Your task to perform on an android device: manage bookmarks in the chrome app Image 0: 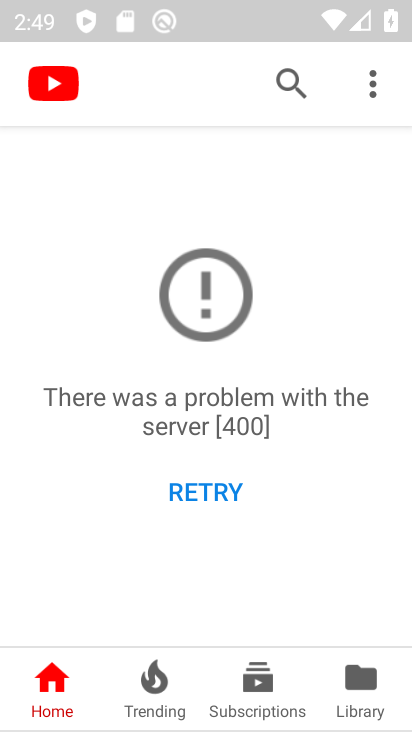
Step 0: press home button
Your task to perform on an android device: manage bookmarks in the chrome app Image 1: 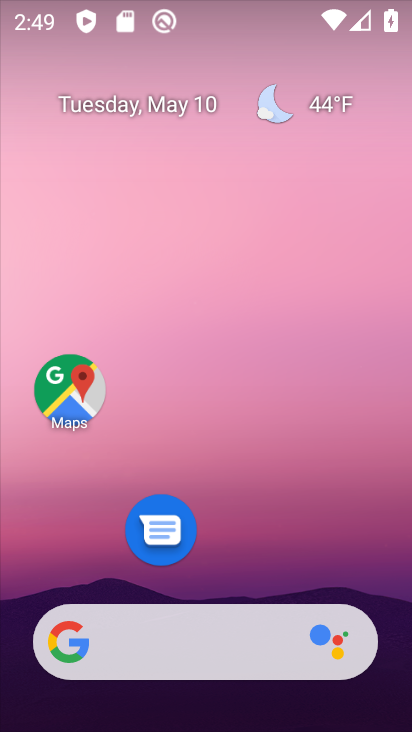
Step 1: drag from (247, 565) to (243, 85)
Your task to perform on an android device: manage bookmarks in the chrome app Image 2: 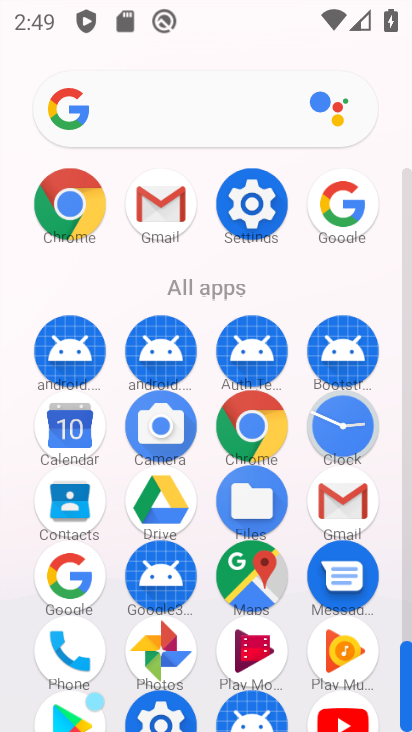
Step 2: click (255, 434)
Your task to perform on an android device: manage bookmarks in the chrome app Image 3: 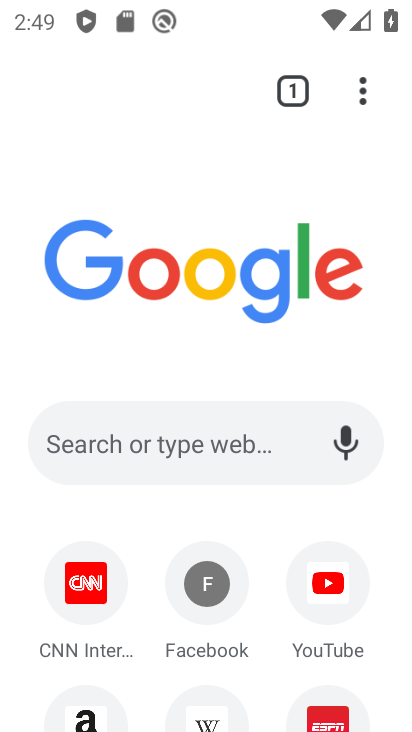
Step 3: click (354, 86)
Your task to perform on an android device: manage bookmarks in the chrome app Image 4: 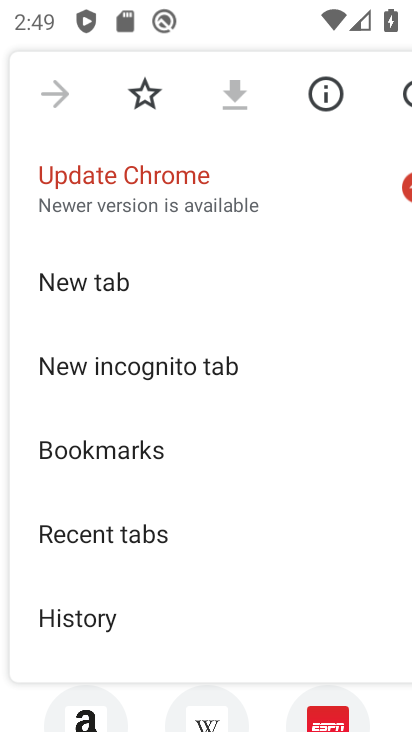
Step 4: drag from (237, 513) to (209, 57)
Your task to perform on an android device: manage bookmarks in the chrome app Image 5: 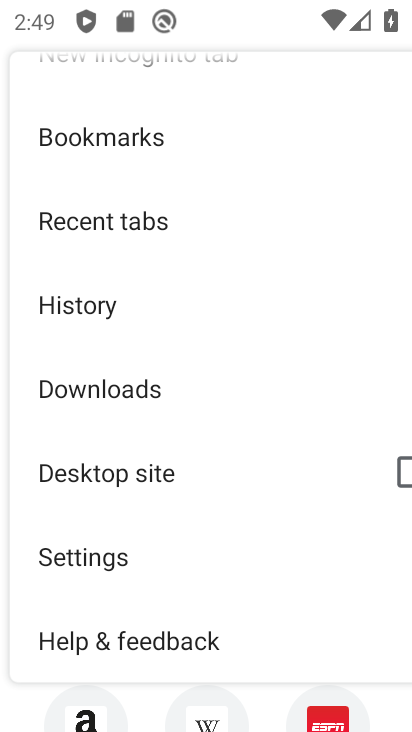
Step 5: click (92, 148)
Your task to perform on an android device: manage bookmarks in the chrome app Image 6: 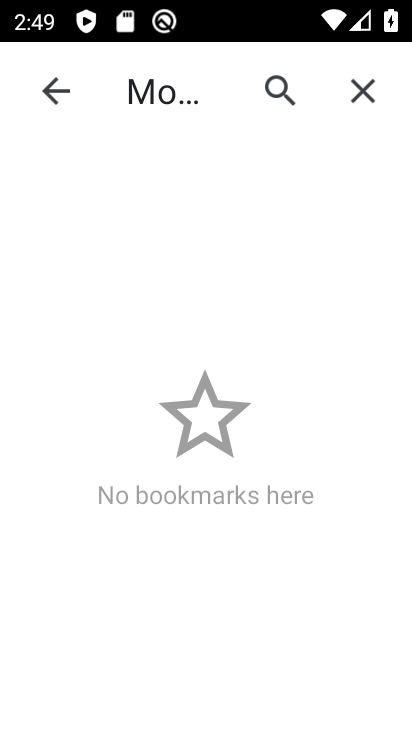
Step 6: task complete